Your task to perform on an android device: turn off priority inbox in the gmail app Image 0: 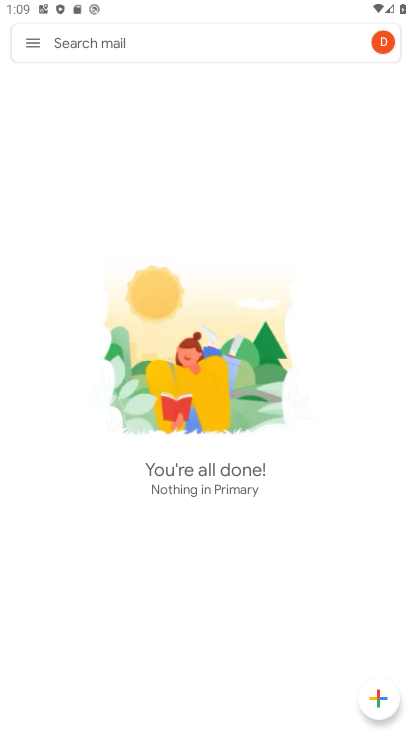
Step 0: press home button
Your task to perform on an android device: turn off priority inbox in the gmail app Image 1: 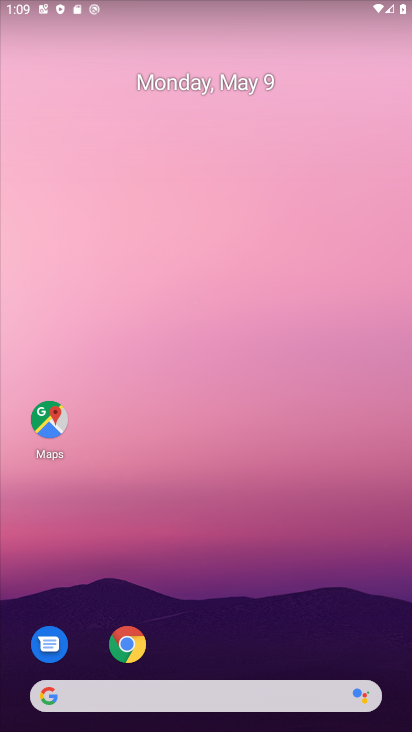
Step 1: drag from (282, 576) to (366, 109)
Your task to perform on an android device: turn off priority inbox in the gmail app Image 2: 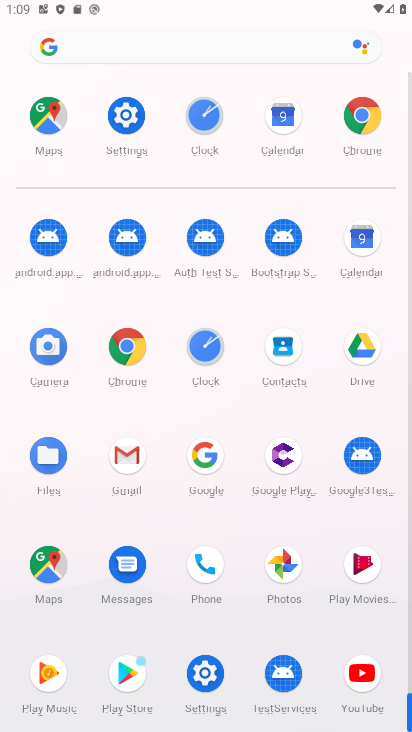
Step 2: click (122, 468)
Your task to perform on an android device: turn off priority inbox in the gmail app Image 3: 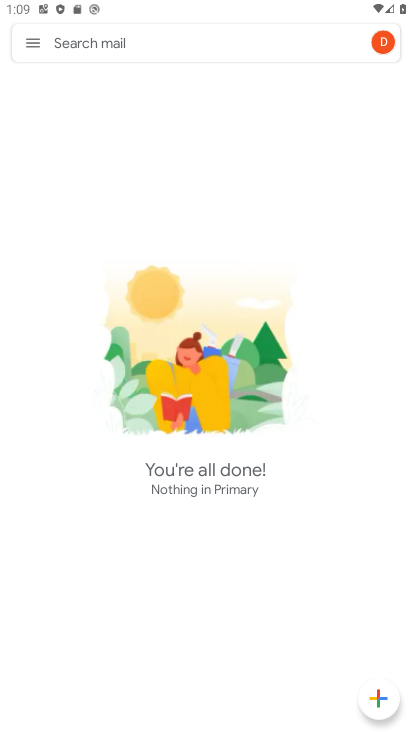
Step 3: click (36, 53)
Your task to perform on an android device: turn off priority inbox in the gmail app Image 4: 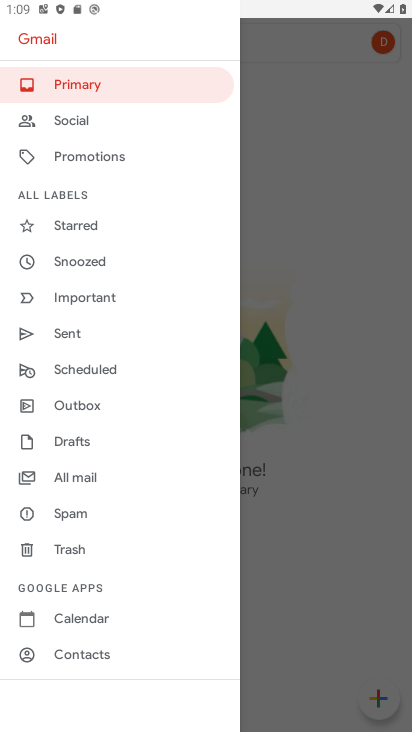
Step 4: drag from (111, 644) to (178, 344)
Your task to perform on an android device: turn off priority inbox in the gmail app Image 5: 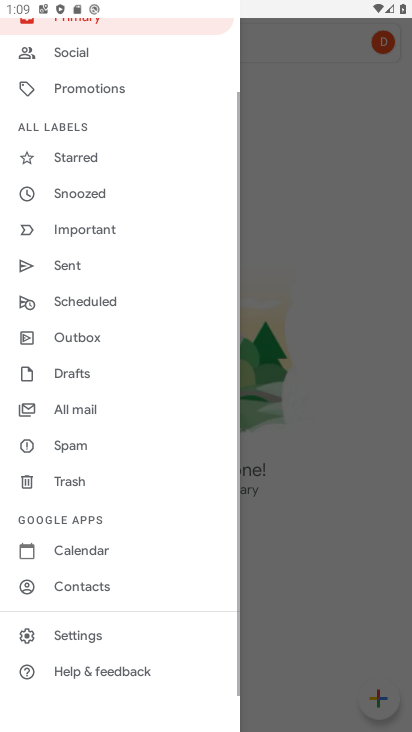
Step 5: click (117, 632)
Your task to perform on an android device: turn off priority inbox in the gmail app Image 6: 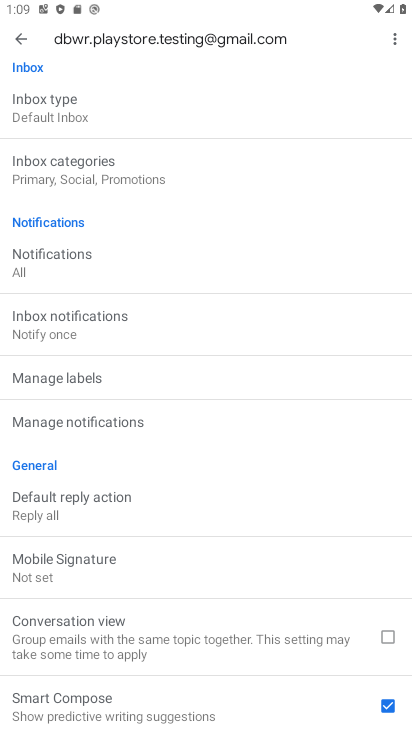
Step 6: drag from (163, 643) to (158, 291)
Your task to perform on an android device: turn off priority inbox in the gmail app Image 7: 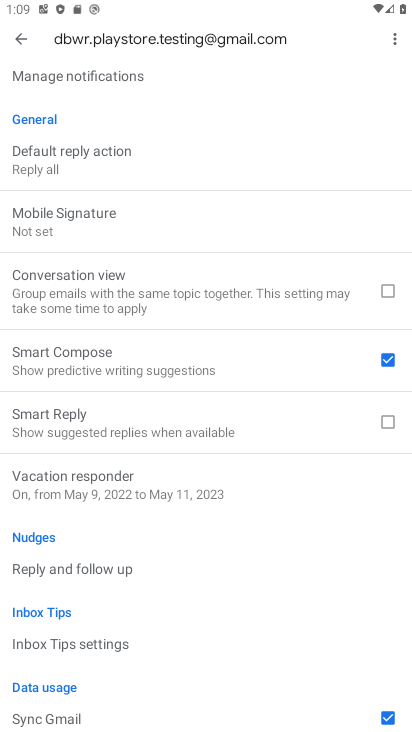
Step 7: drag from (203, 272) to (216, 638)
Your task to perform on an android device: turn off priority inbox in the gmail app Image 8: 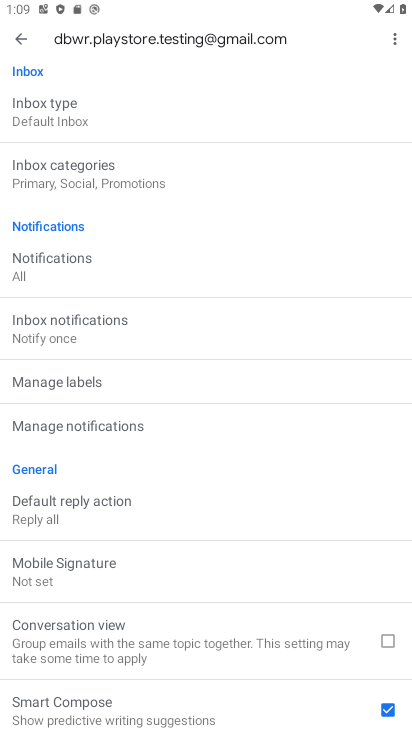
Step 8: drag from (239, 326) to (206, 691)
Your task to perform on an android device: turn off priority inbox in the gmail app Image 9: 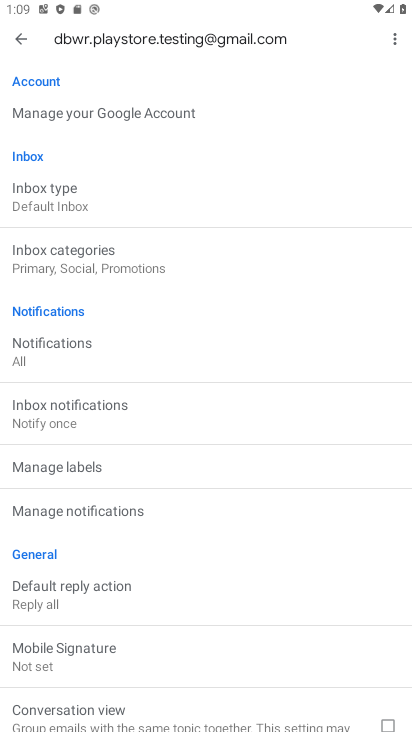
Step 9: click (85, 212)
Your task to perform on an android device: turn off priority inbox in the gmail app Image 10: 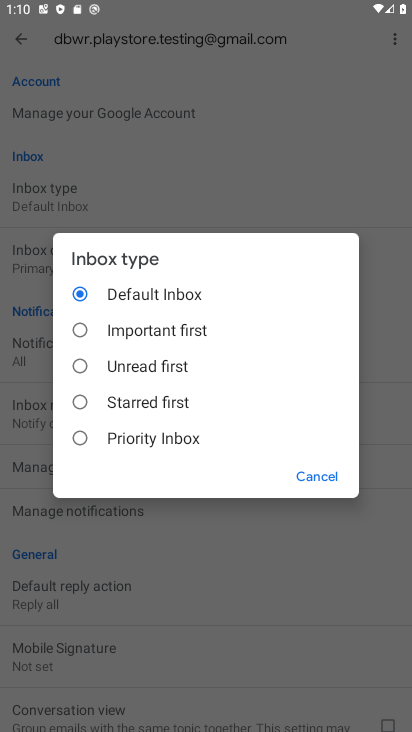
Step 10: task complete